Your task to perform on an android device: open app "Lyft - Rideshare, Bikes, Scooters & Transit" (install if not already installed) Image 0: 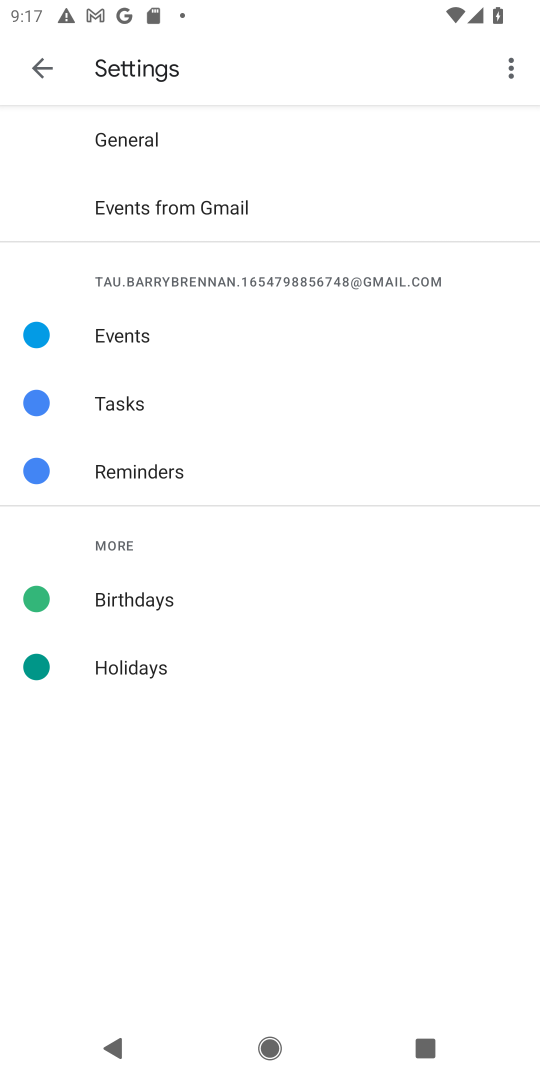
Step 0: press home button
Your task to perform on an android device: open app "Lyft - Rideshare, Bikes, Scooters & Transit" (install if not already installed) Image 1: 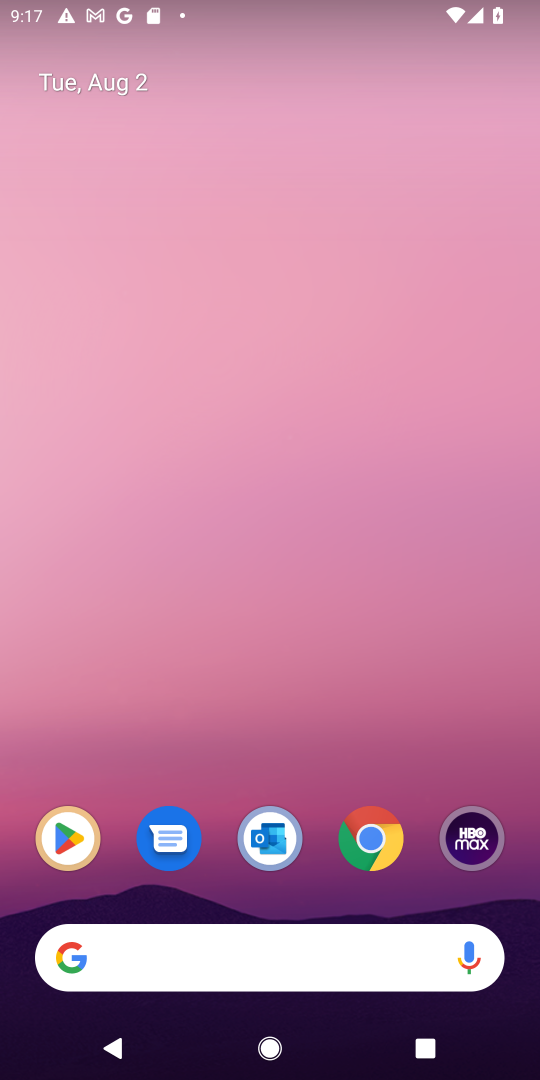
Step 1: drag from (315, 782) to (311, 40)
Your task to perform on an android device: open app "Lyft - Rideshare, Bikes, Scooters & Transit" (install if not already installed) Image 2: 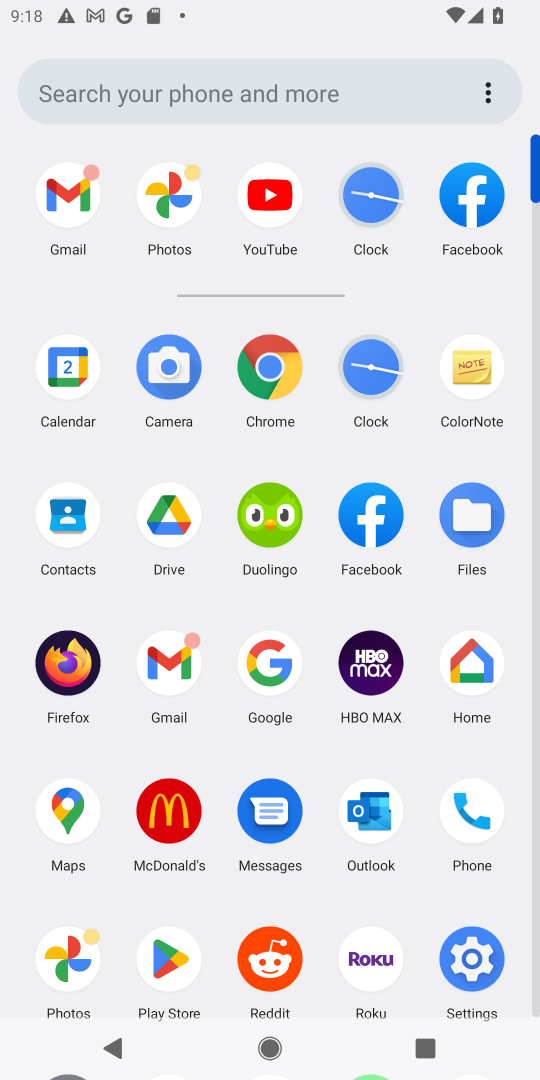
Step 2: click (173, 969)
Your task to perform on an android device: open app "Lyft - Rideshare, Bikes, Scooters & Transit" (install if not already installed) Image 3: 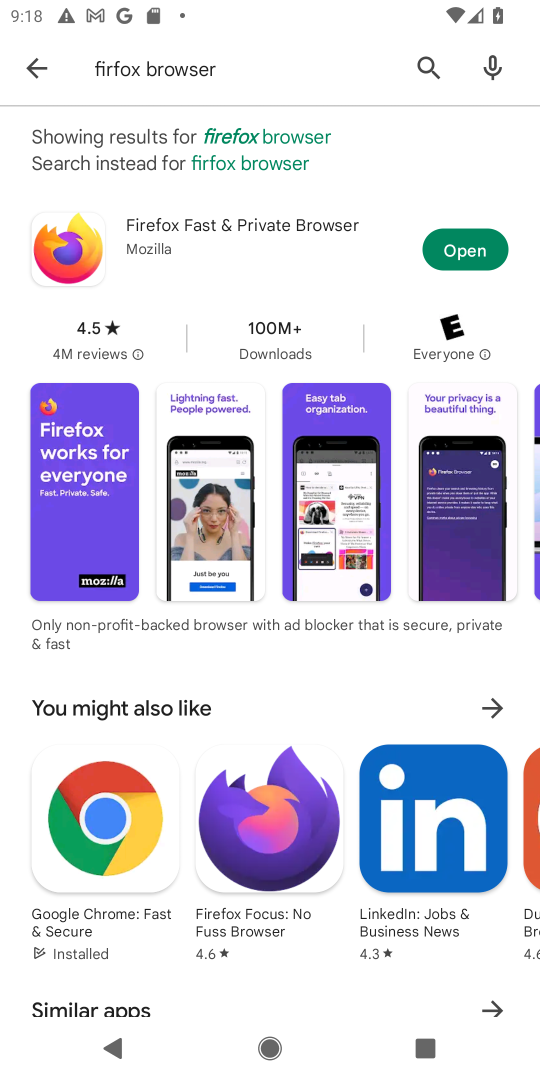
Step 3: click (422, 59)
Your task to perform on an android device: open app "Lyft - Rideshare, Bikes, Scooters & Transit" (install if not already installed) Image 4: 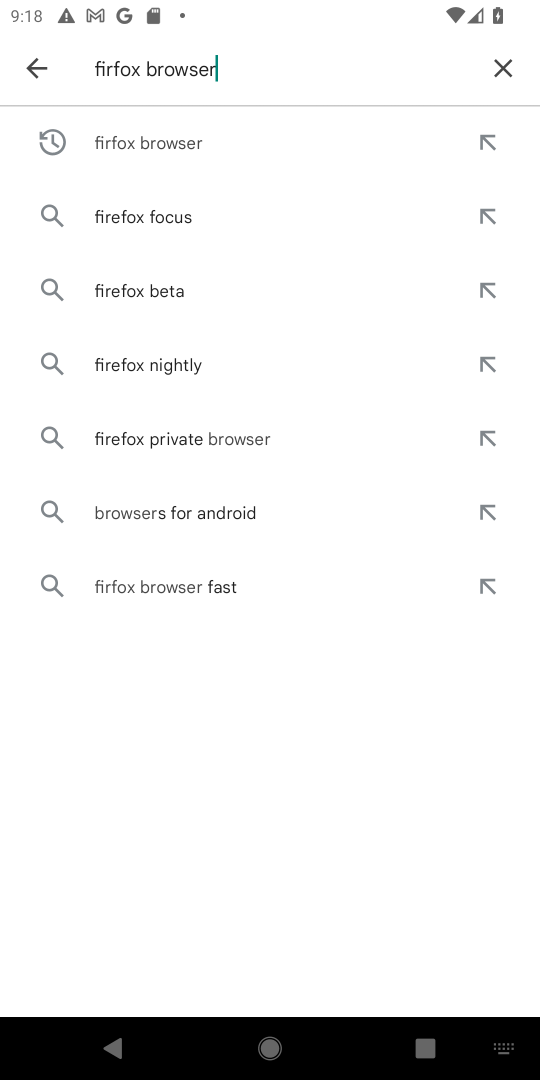
Step 4: click (506, 69)
Your task to perform on an android device: open app "Lyft - Rideshare, Bikes, Scooters & Transit" (install if not already installed) Image 5: 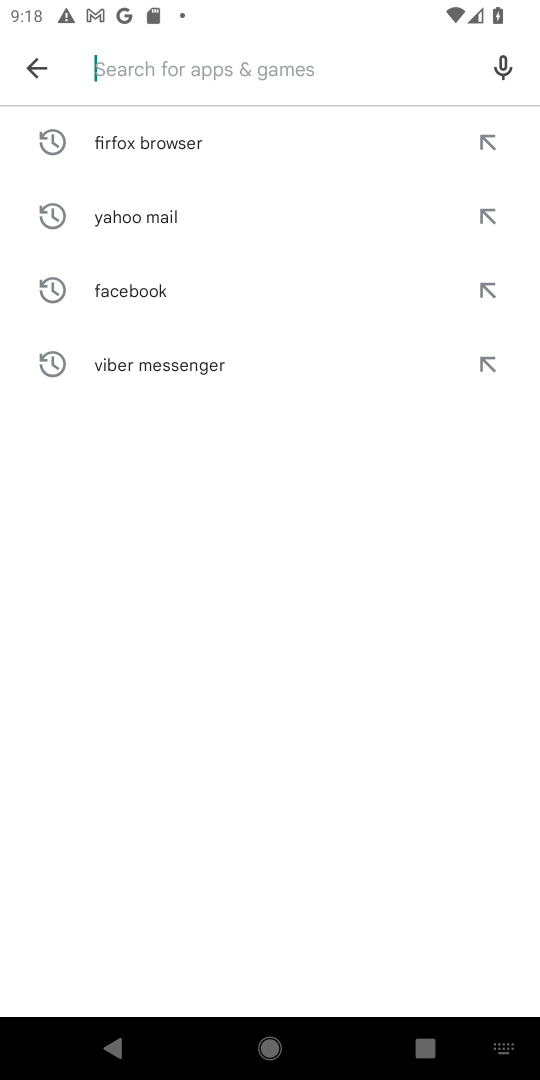
Step 5: type "Lyft - Rideshare, Bikes, Scooters & Transit"
Your task to perform on an android device: open app "Lyft - Rideshare, Bikes, Scooters & Transit" (install if not already installed) Image 6: 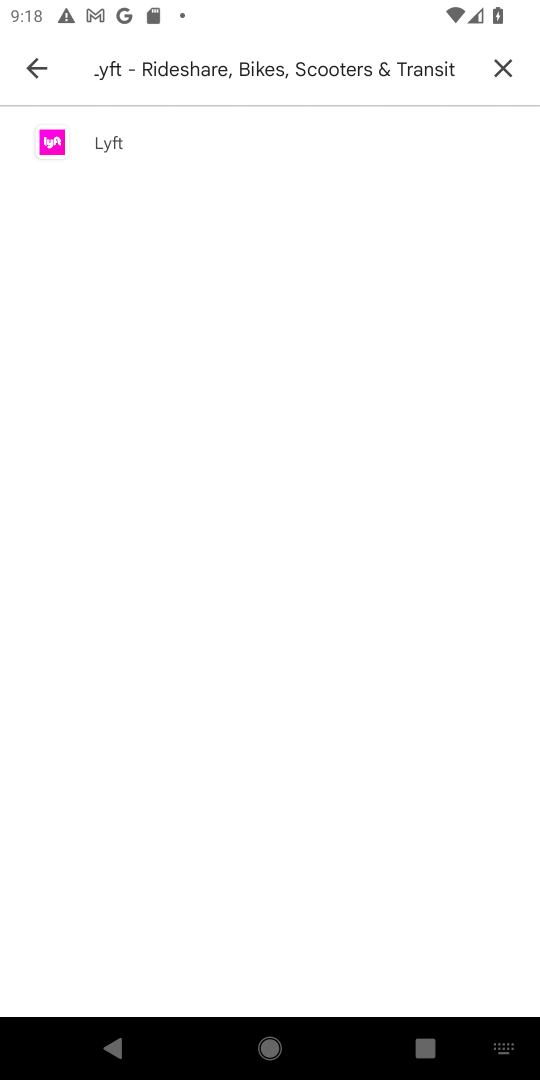
Step 6: click (117, 141)
Your task to perform on an android device: open app "Lyft - Rideshare, Bikes, Scooters & Transit" (install if not already installed) Image 7: 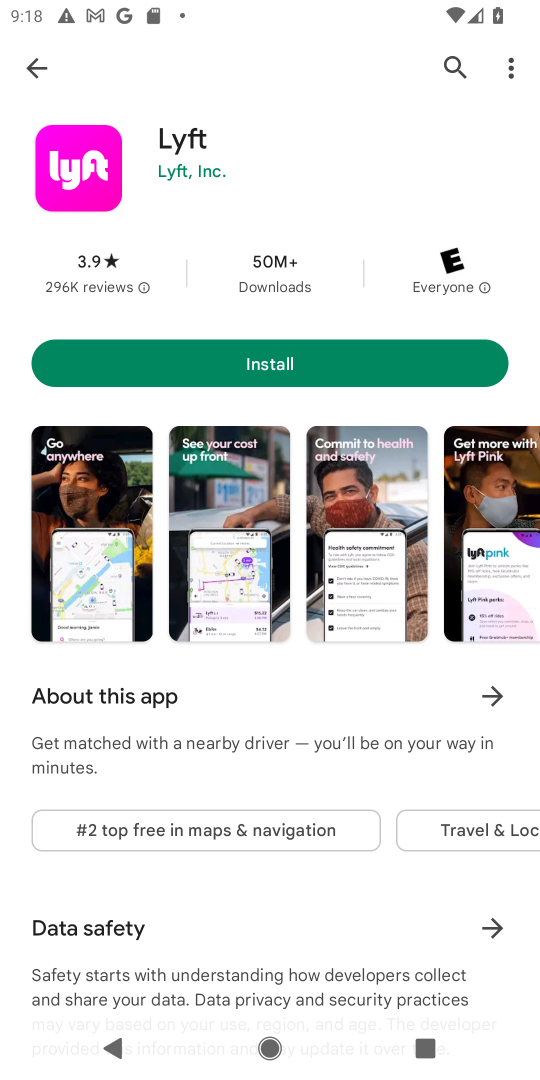
Step 7: click (252, 364)
Your task to perform on an android device: open app "Lyft - Rideshare, Bikes, Scooters & Transit" (install if not already installed) Image 8: 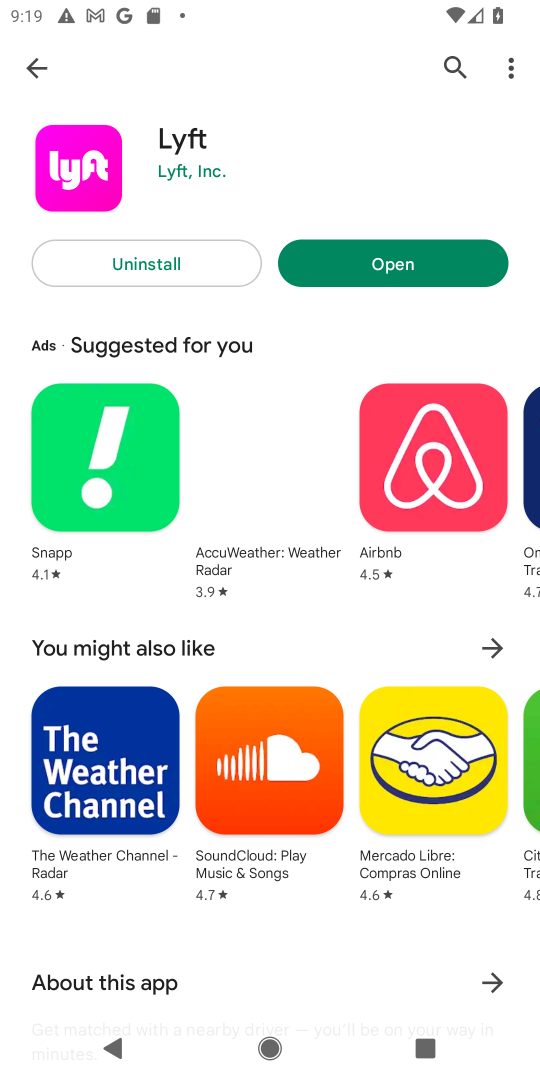
Step 8: click (455, 268)
Your task to perform on an android device: open app "Lyft - Rideshare, Bikes, Scooters & Transit" (install if not already installed) Image 9: 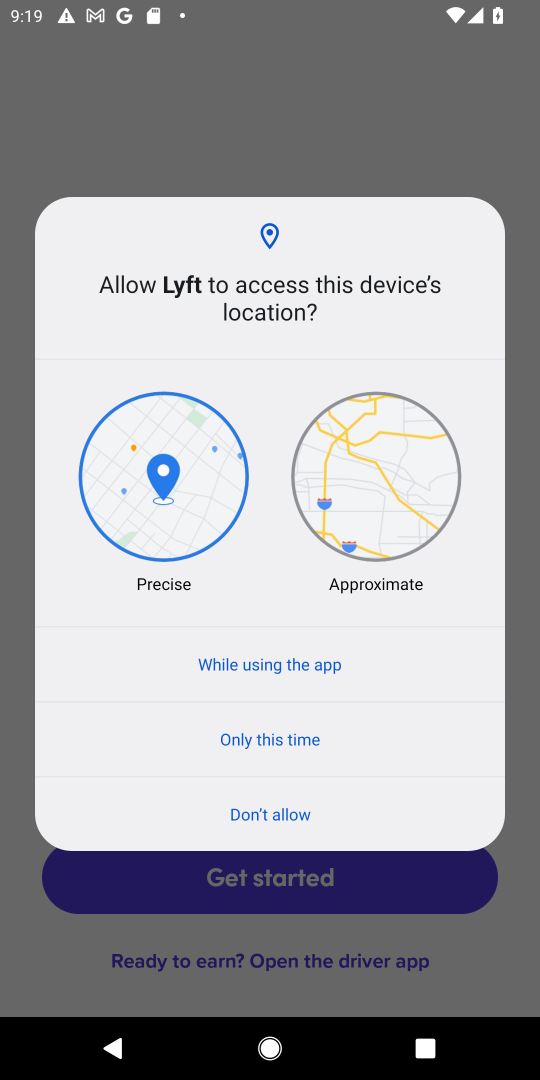
Step 9: task complete